Your task to perform on an android device: Go to settings Image 0: 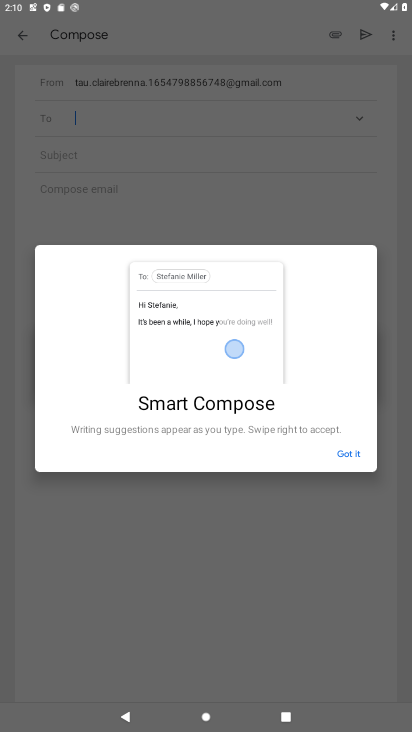
Step 0: press home button
Your task to perform on an android device: Go to settings Image 1: 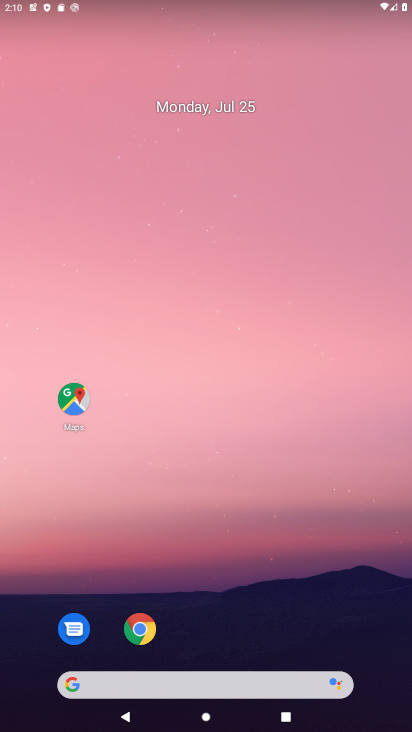
Step 1: drag from (217, 572) to (277, 2)
Your task to perform on an android device: Go to settings Image 2: 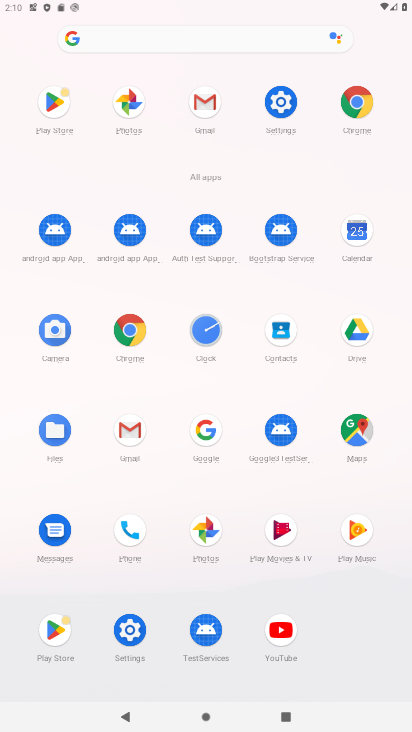
Step 2: click (283, 122)
Your task to perform on an android device: Go to settings Image 3: 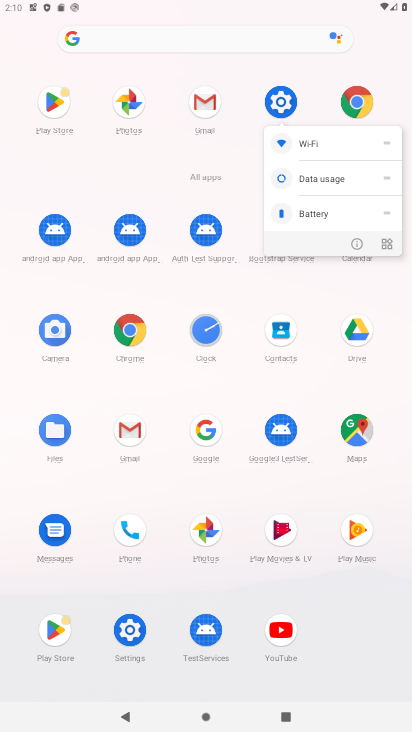
Step 3: click (282, 106)
Your task to perform on an android device: Go to settings Image 4: 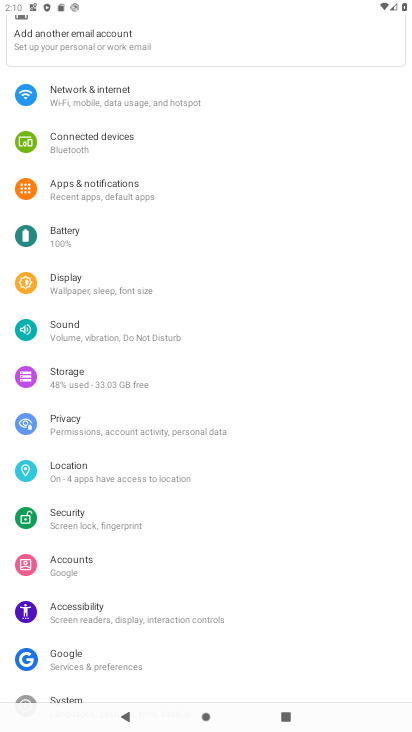
Step 4: task complete